Your task to perform on an android device: toggle javascript in the chrome app Image 0: 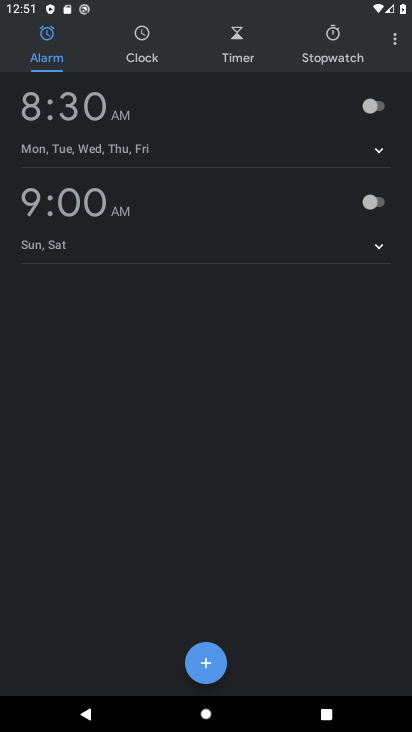
Step 0: press home button
Your task to perform on an android device: toggle javascript in the chrome app Image 1: 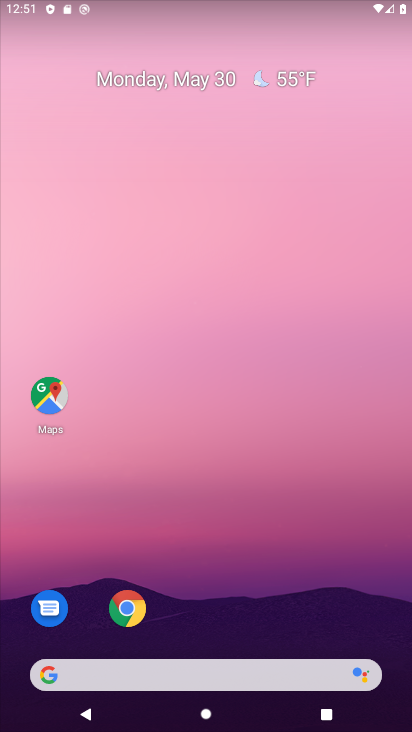
Step 1: click (131, 616)
Your task to perform on an android device: toggle javascript in the chrome app Image 2: 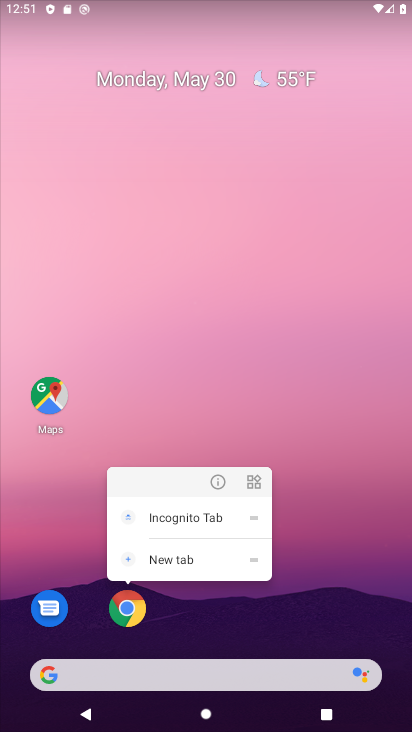
Step 2: click (136, 600)
Your task to perform on an android device: toggle javascript in the chrome app Image 3: 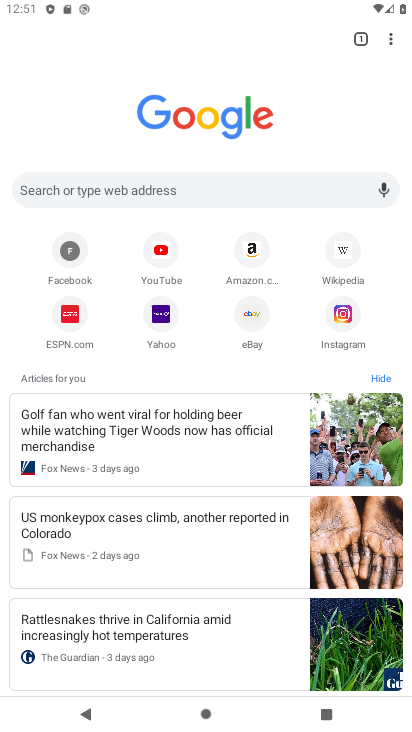
Step 3: drag from (395, 33) to (298, 315)
Your task to perform on an android device: toggle javascript in the chrome app Image 4: 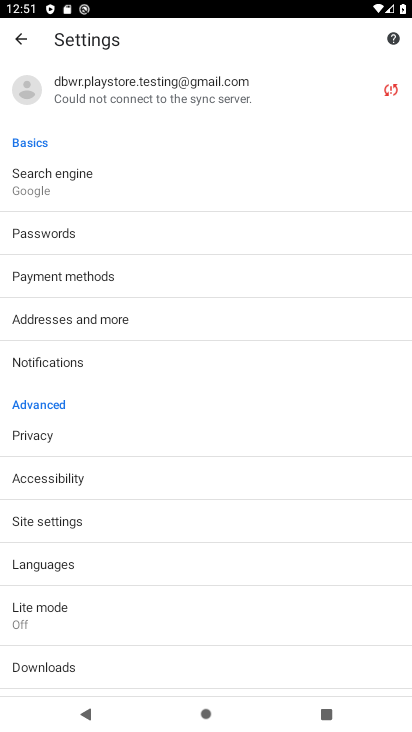
Step 4: click (85, 512)
Your task to perform on an android device: toggle javascript in the chrome app Image 5: 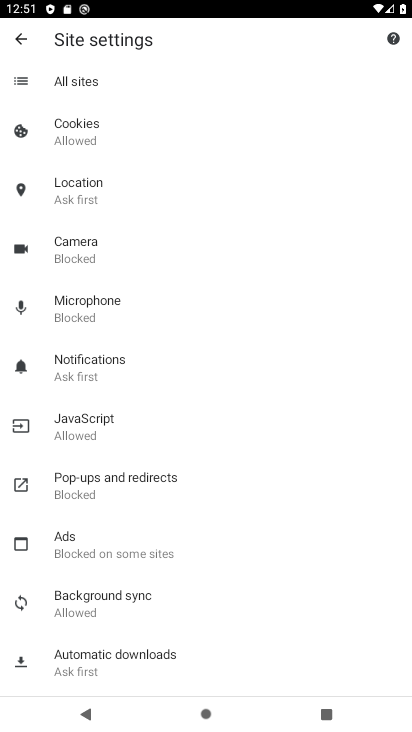
Step 5: click (143, 436)
Your task to perform on an android device: toggle javascript in the chrome app Image 6: 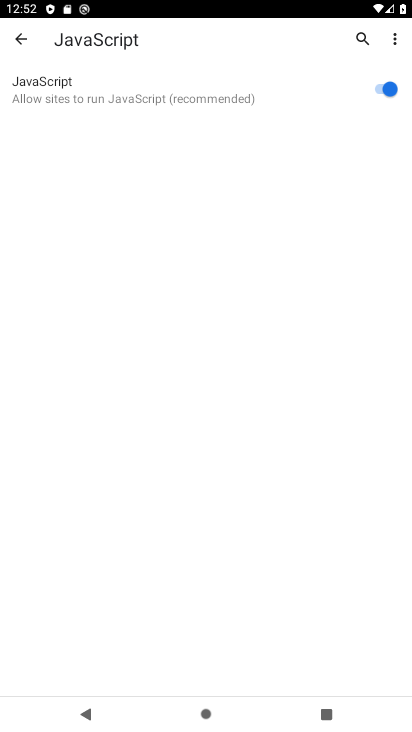
Step 6: click (369, 80)
Your task to perform on an android device: toggle javascript in the chrome app Image 7: 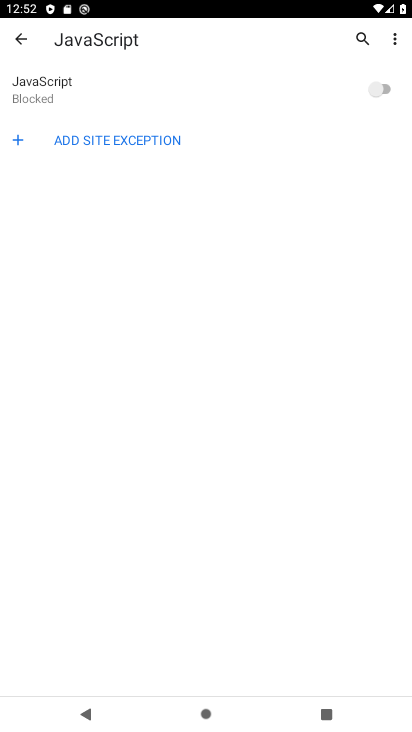
Step 7: task complete